Your task to perform on an android device: toggle wifi Image 0: 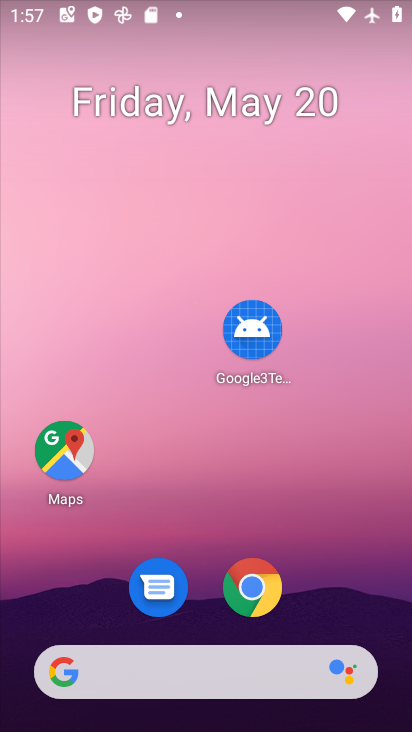
Step 0: drag from (327, 573) to (279, 106)
Your task to perform on an android device: toggle wifi Image 1: 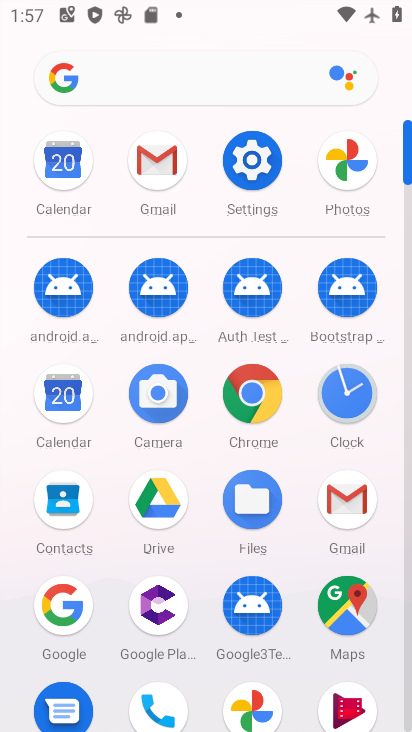
Step 1: click (245, 155)
Your task to perform on an android device: toggle wifi Image 2: 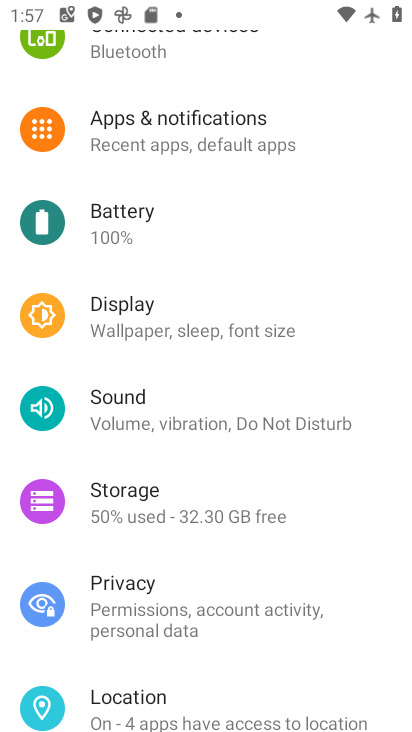
Step 2: drag from (230, 191) to (186, 663)
Your task to perform on an android device: toggle wifi Image 3: 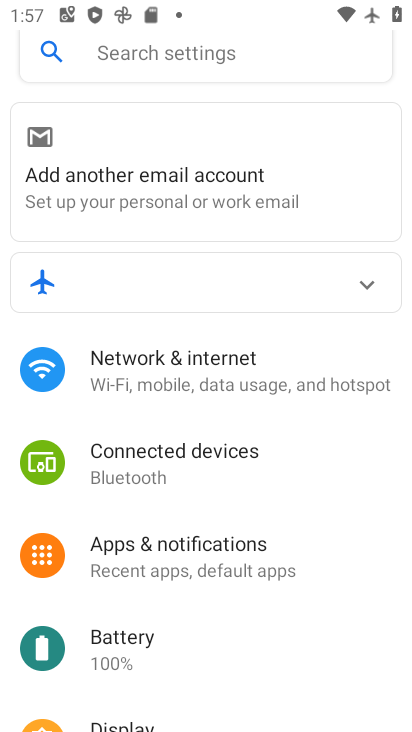
Step 3: click (170, 365)
Your task to perform on an android device: toggle wifi Image 4: 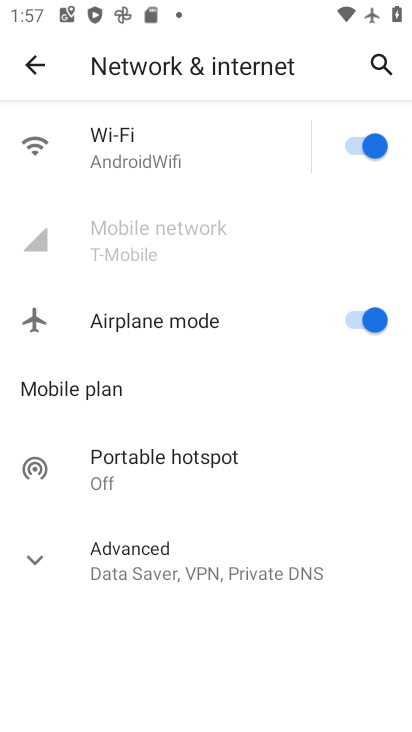
Step 4: click (357, 152)
Your task to perform on an android device: toggle wifi Image 5: 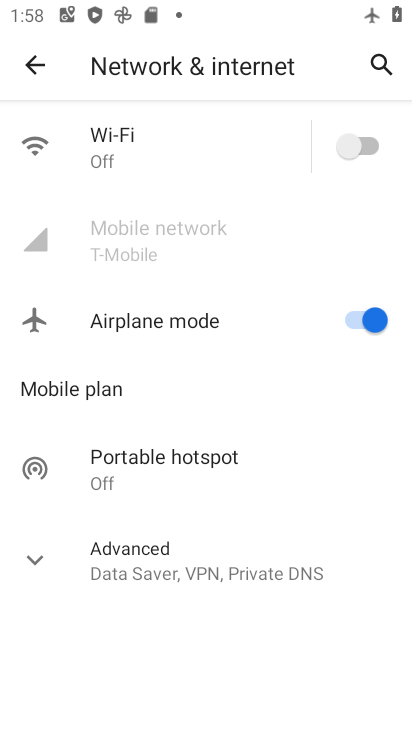
Step 5: task complete